Your task to perform on an android device: toggle sleep mode Image 0: 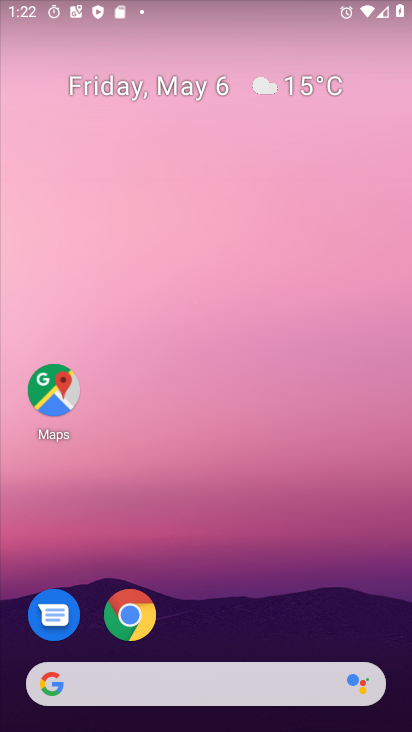
Step 0: drag from (309, 574) to (301, 37)
Your task to perform on an android device: toggle sleep mode Image 1: 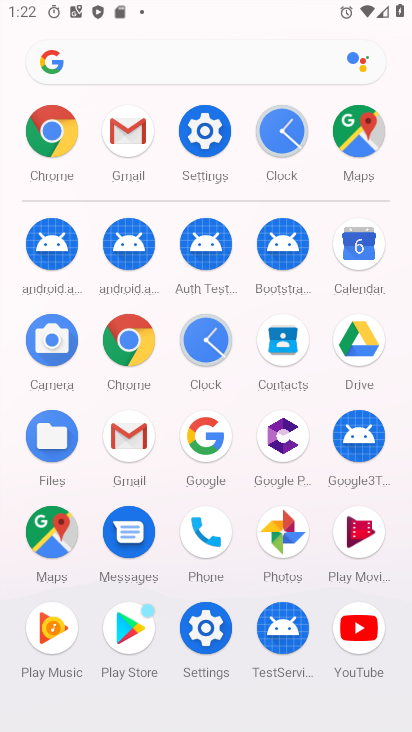
Step 1: click (211, 128)
Your task to perform on an android device: toggle sleep mode Image 2: 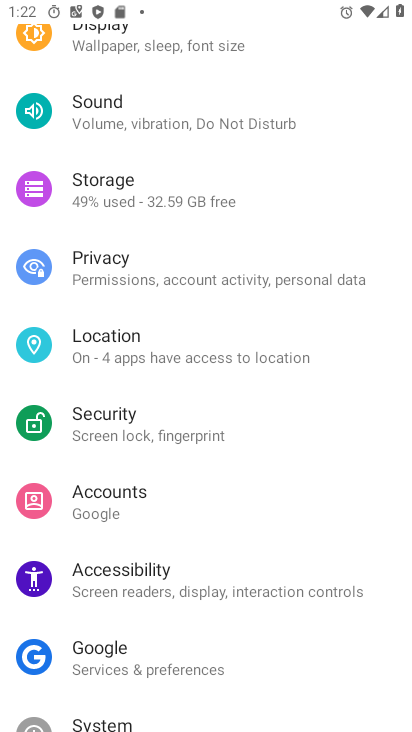
Step 2: drag from (195, 59) to (178, 368)
Your task to perform on an android device: toggle sleep mode Image 3: 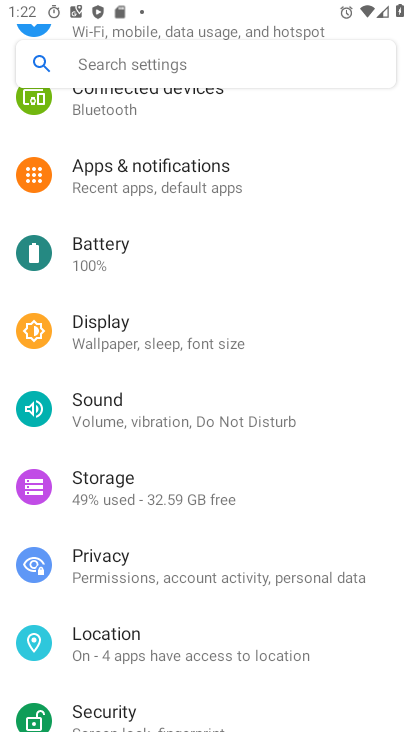
Step 3: click (176, 323)
Your task to perform on an android device: toggle sleep mode Image 4: 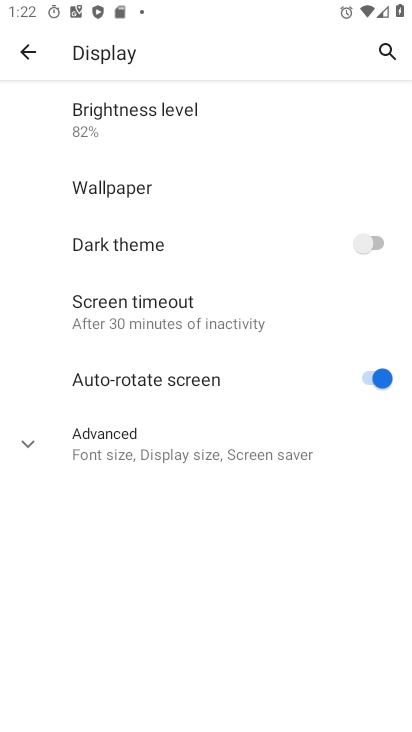
Step 4: click (28, 439)
Your task to perform on an android device: toggle sleep mode Image 5: 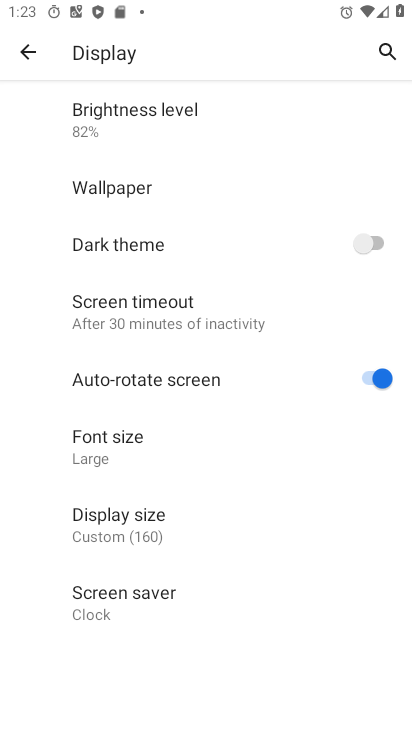
Step 5: task complete